Your task to perform on an android device: add a contact Image 0: 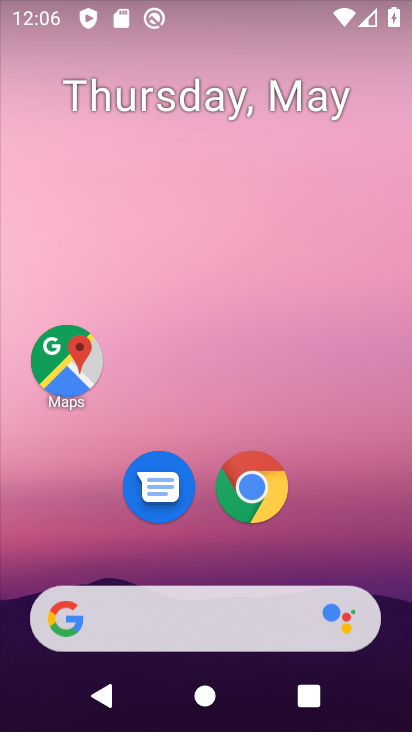
Step 0: drag from (208, 456) to (208, 59)
Your task to perform on an android device: add a contact Image 1: 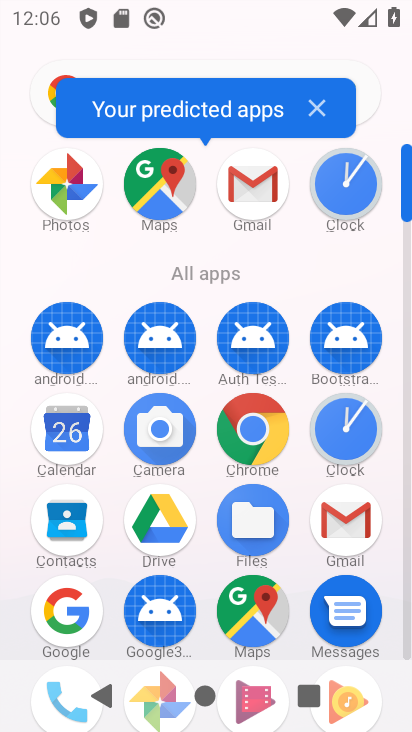
Step 1: click (64, 504)
Your task to perform on an android device: add a contact Image 2: 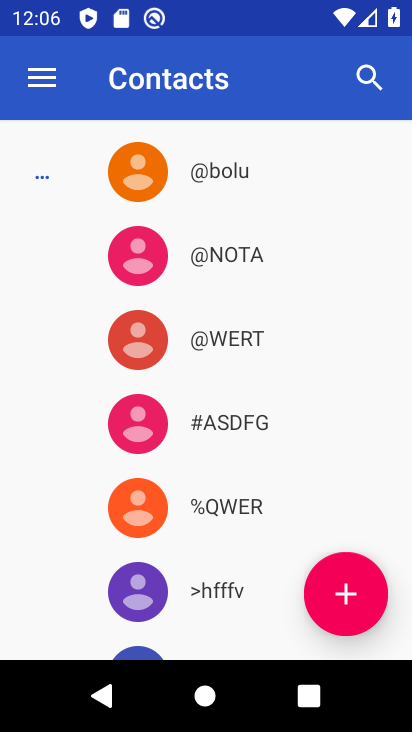
Step 2: click (332, 608)
Your task to perform on an android device: add a contact Image 3: 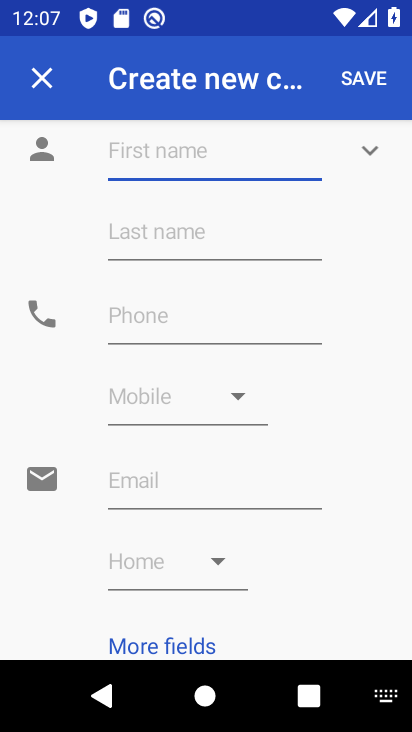
Step 3: type "ko"
Your task to perform on an android device: add a contact Image 4: 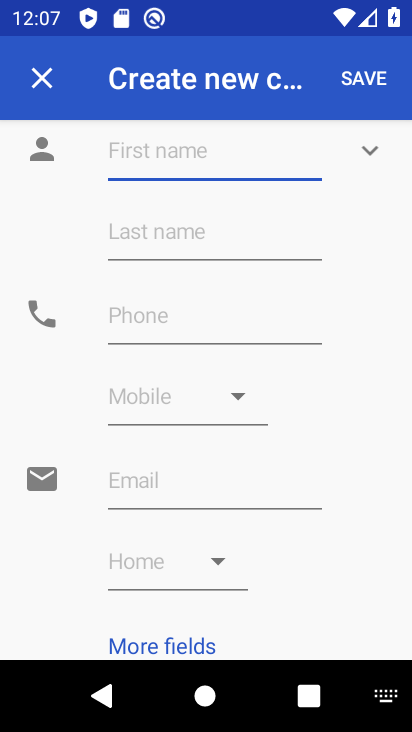
Step 4: click (194, 317)
Your task to perform on an android device: add a contact Image 5: 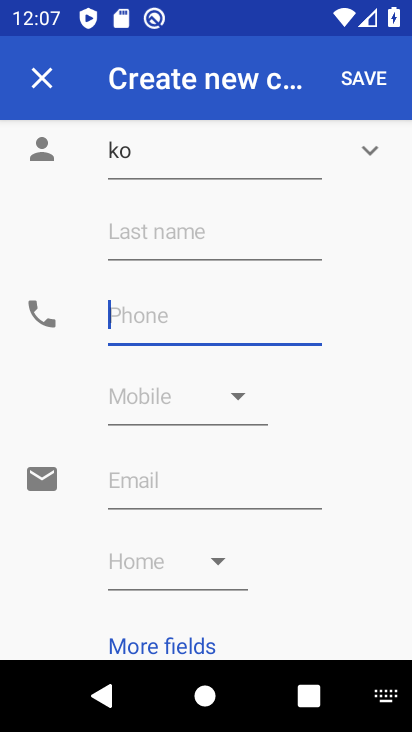
Step 5: type "8"
Your task to perform on an android device: add a contact Image 6: 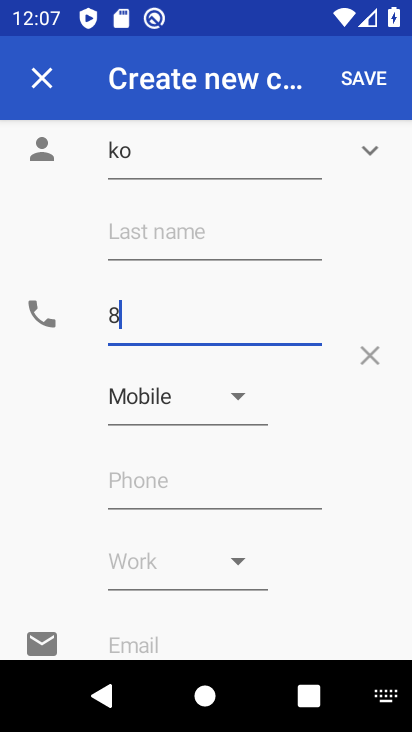
Step 6: click (339, 95)
Your task to perform on an android device: add a contact Image 7: 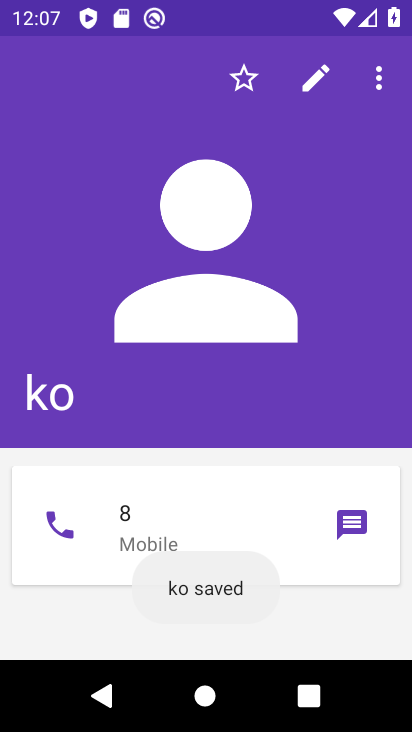
Step 7: task complete